Your task to perform on an android device: delete a single message in the gmail app Image 0: 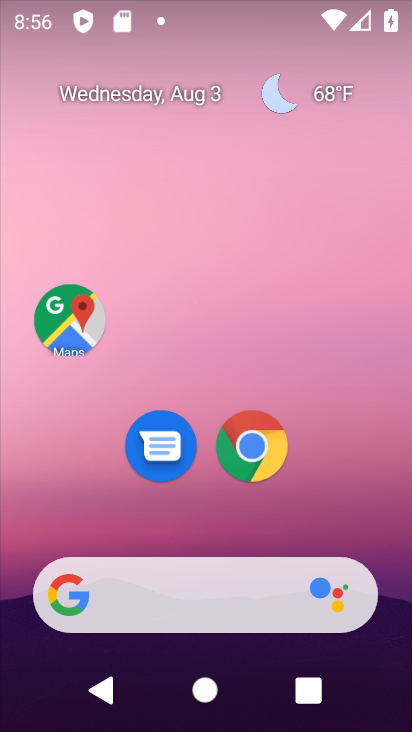
Step 0: drag from (390, 636) to (365, 63)
Your task to perform on an android device: delete a single message in the gmail app Image 1: 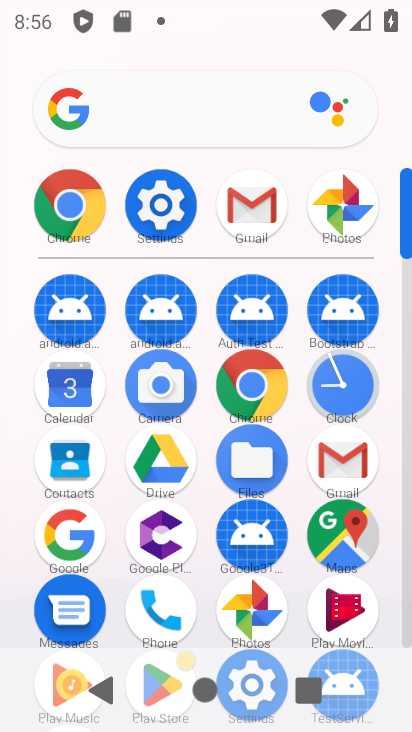
Step 1: click (346, 449)
Your task to perform on an android device: delete a single message in the gmail app Image 2: 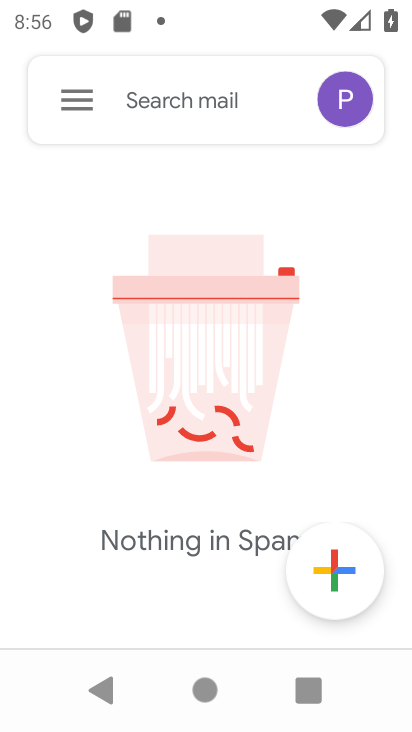
Step 2: click (77, 97)
Your task to perform on an android device: delete a single message in the gmail app Image 3: 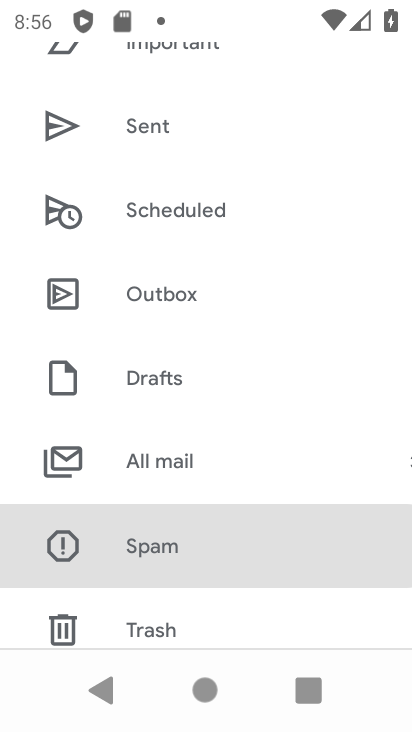
Step 3: drag from (261, 107) to (254, 603)
Your task to perform on an android device: delete a single message in the gmail app Image 4: 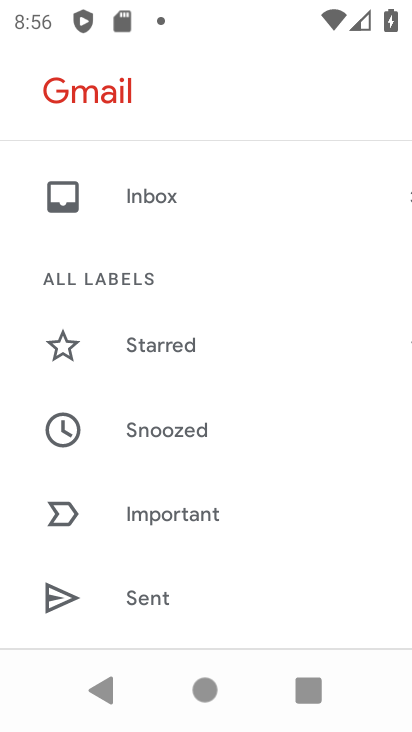
Step 4: click (165, 190)
Your task to perform on an android device: delete a single message in the gmail app Image 5: 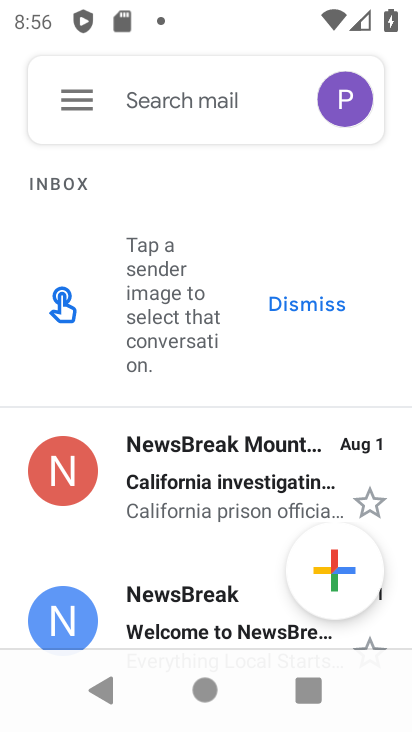
Step 5: drag from (191, 636) to (192, 194)
Your task to perform on an android device: delete a single message in the gmail app Image 6: 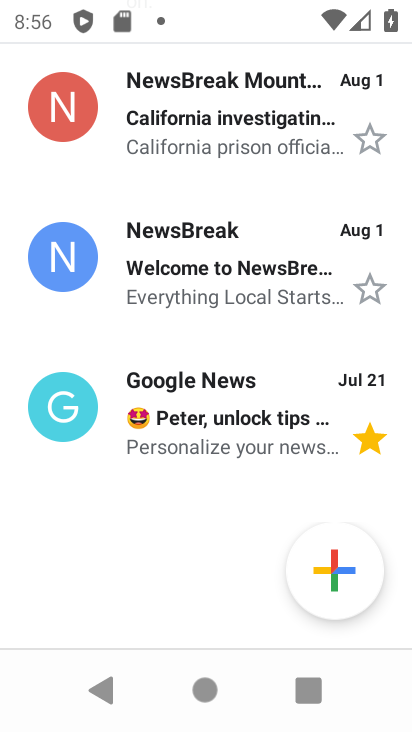
Step 6: click (218, 255)
Your task to perform on an android device: delete a single message in the gmail app Image 7: 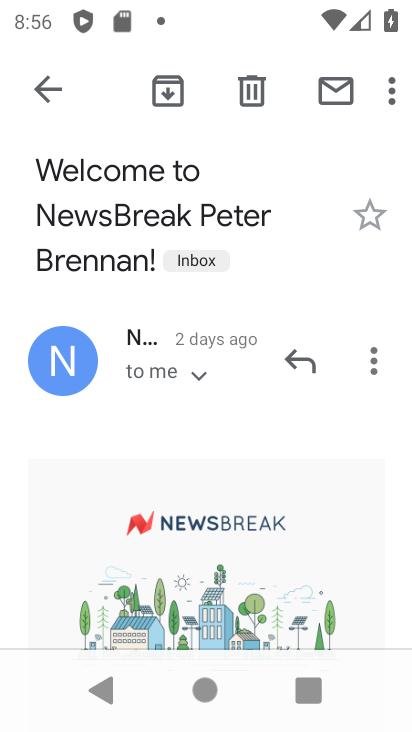
Step 7: click (244, 78)
Your task to perform on an android device: delete a single message in the gmail app Image 8: 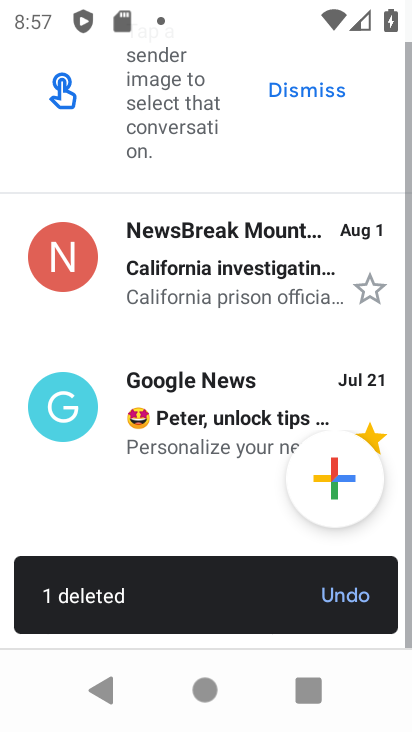
Step 8: click (348, 591)
Your task to perform on an android device: delete a single message in the gmail app Image 9: 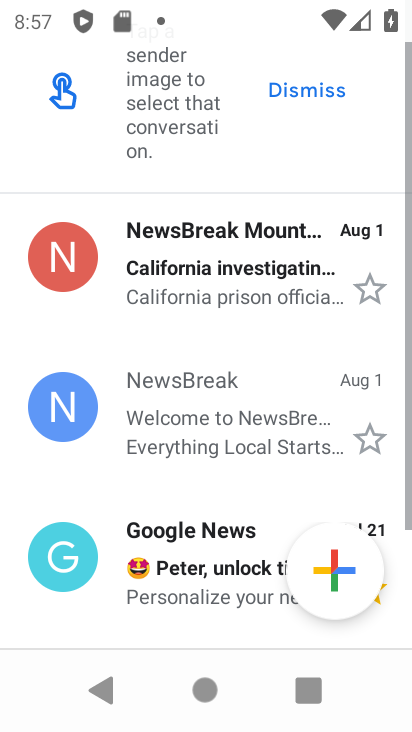
Step 9: click (251, 427)
Your task to perform on an android device: delete a single message in the gmail app Image 10: 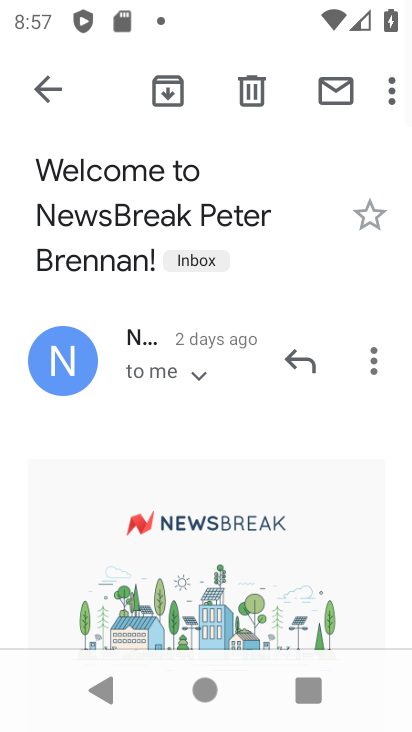
Step 10: click (257, 82)
Your task to perform on an android device: delete a single message in the gmail app Image 11: 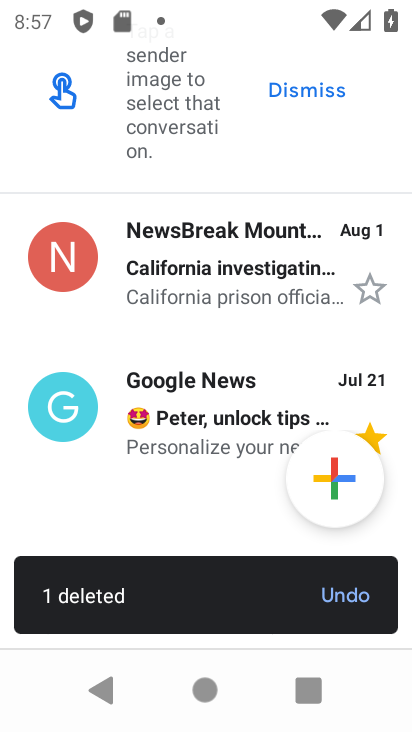
Step 11: task complete